Your task to perform on an android device: change the clock display to digital Image 0: 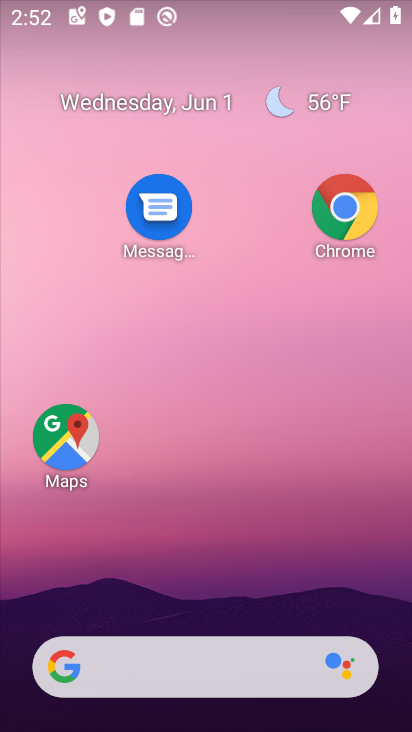
Step 0: drag from (179, 573) to (191, 147)
Your task to perform on an android device: change the clock display to digital Image 1: 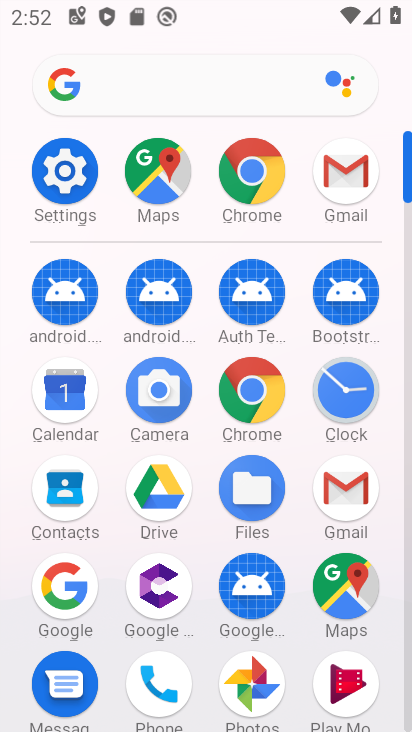
Step 1: click (81, 174)
Your task to perform on an android device: change the clock display to digital Image 2: 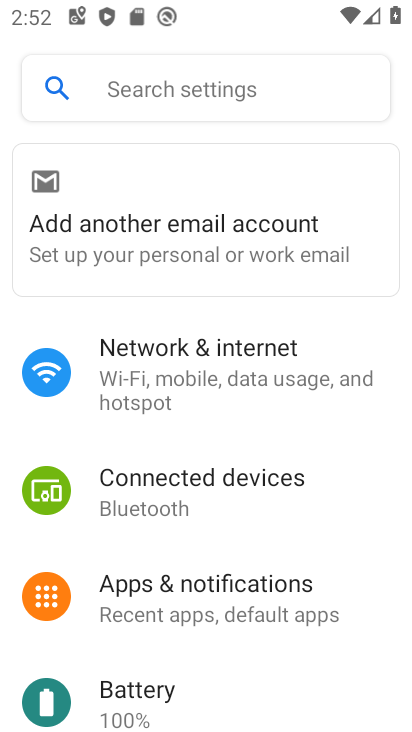
Step 2: drag from (228, 492) to (269, 99)
Your task to perform on an android device: change the clock display to digital Image 3: 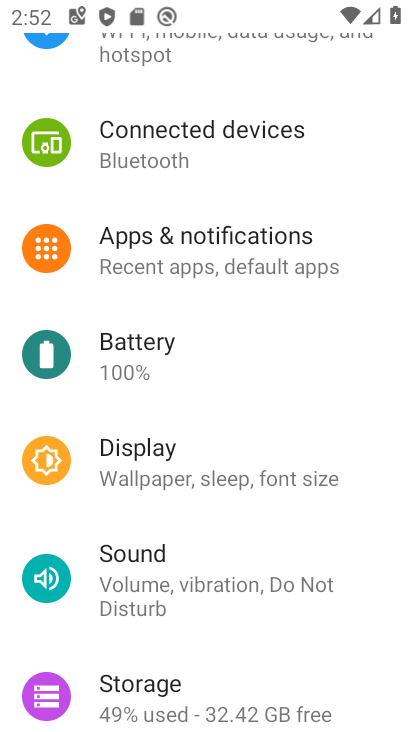
Step 3: press home button
Your task to perform on an android device: change the clock display to digital Image 4: 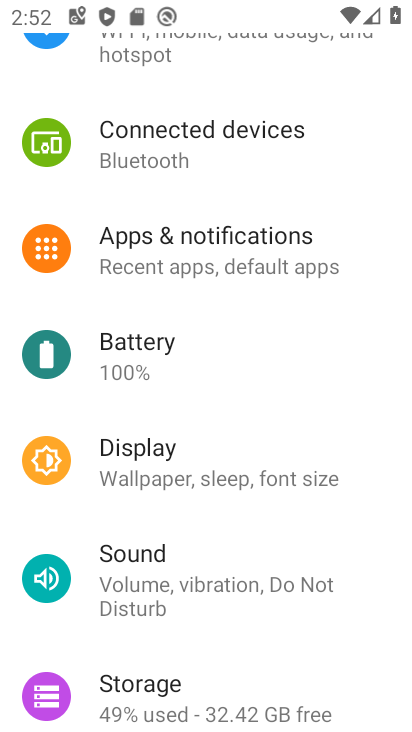
Step 4: drag from (144, 639) to (274, 134)
Your task to perform on an android device: change the clock display to digital Image 5: 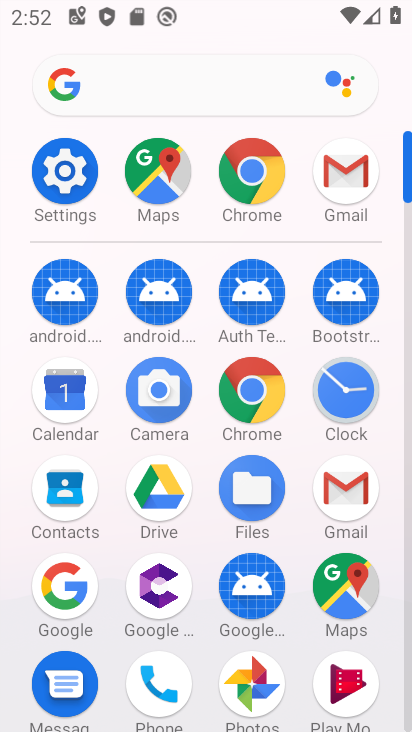
Step 5: click (344, 400)
Your task to perform on an android device: change the clock display to digital Image 6: 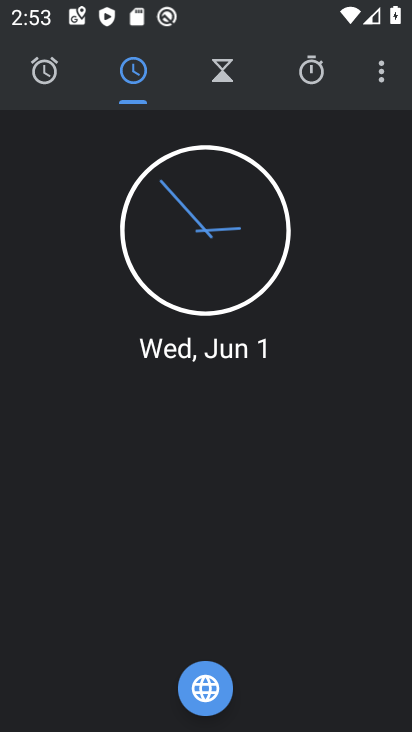
Step 6: click (387, 73)
Your task to perform on an android device: change the clock display to digital Image 7: 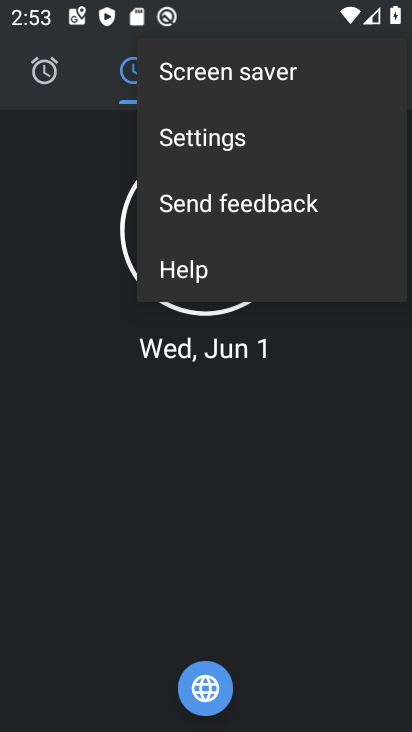
Step 7: click (273, 122)
Your task to perform on an android device: change the clock display to digital Image 8: 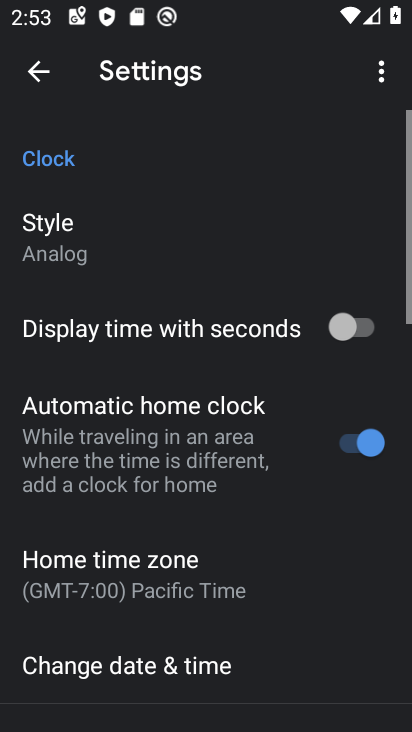
Step 8: click (82, 242)
Your task to perform on an android device: change the clock display to digital Image 9: 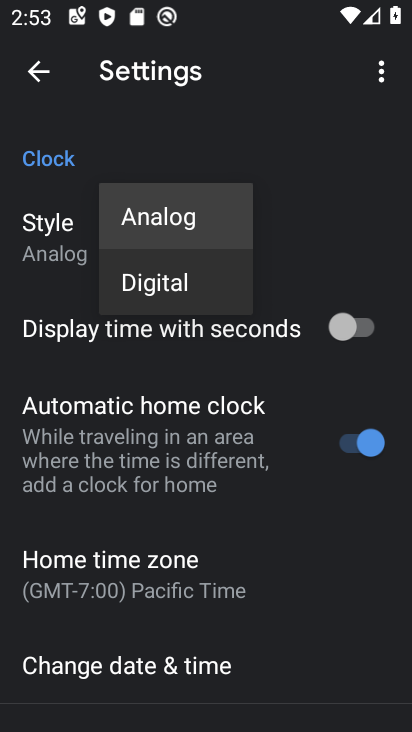
Step 9: click (168, 275)
Your task to perform on an android device: change the clock display to digital Image 10: 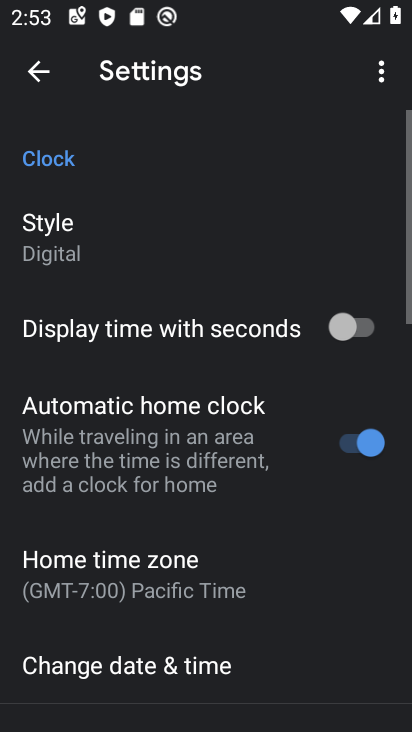
Step 10: task complete